Your task to perform on an android device: turn off smart reply in the gmail app Image 0: 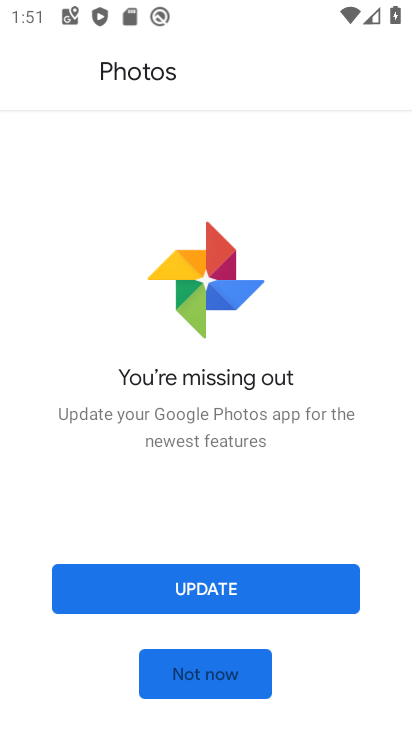
Step 0: press home button
Your task to perform on an android device: turn off smart reply in the gmail app Image 1: 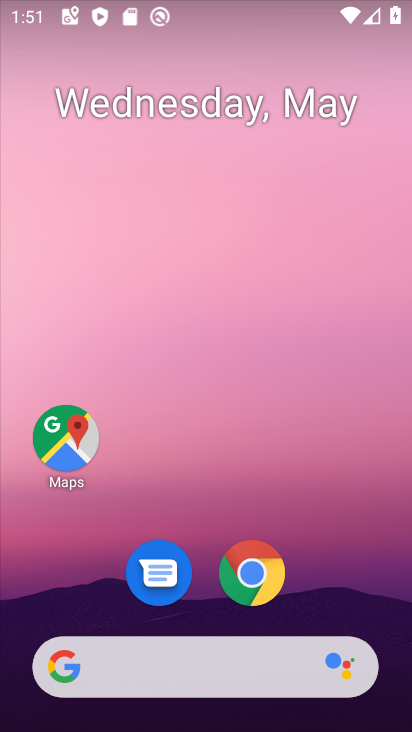
Step 1: drag from (312, 592) to (357, 89)
Your task to perform on an android device: turn off smart reply in the gmail app Image 2: 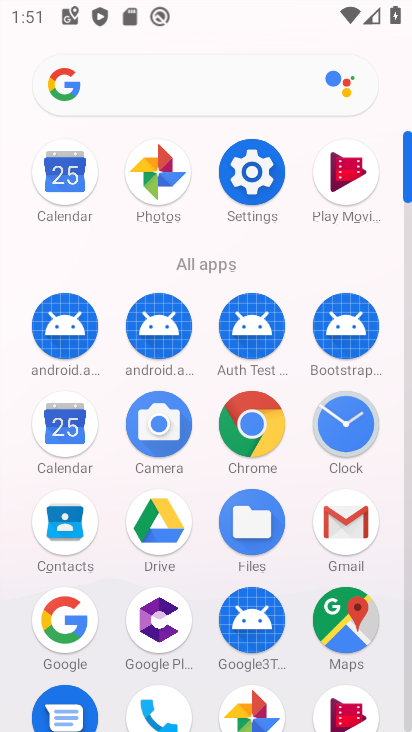
Step 2: click (330, 531)
Your task to perform on an android device: turn off smart reply in the gmail app Image 3: 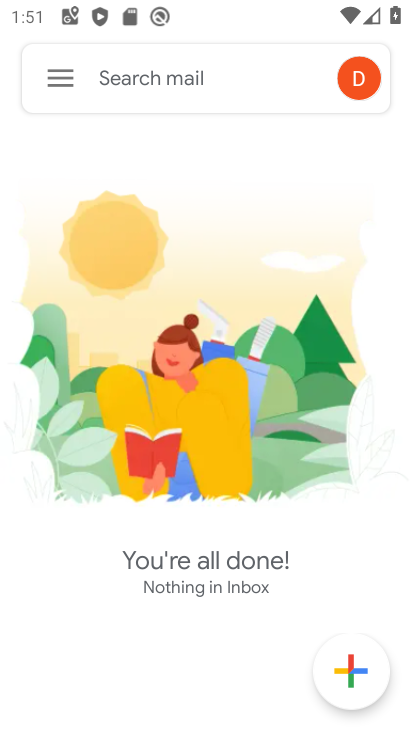
Step 3: click (55, 70)
Your task to perform on an android device: turn off smart reply in the gmail app Image 4: 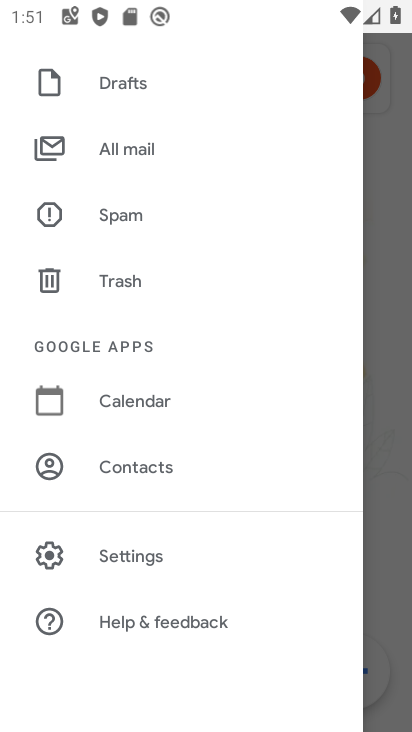
Step 4: click (151, 551)
Your task to perform on an android device: turn off smart reply in the gmail app Image 5: 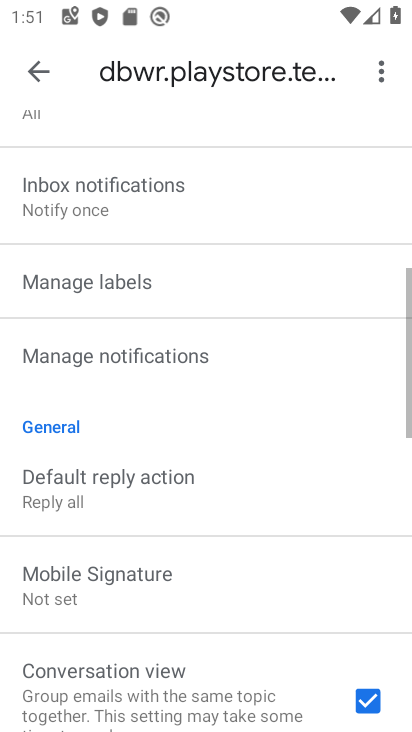
Step 5: drag from (162, 531) to (297, 222)
Your task to perform on an android device: turn off smart reply in the gmail app Image 6: 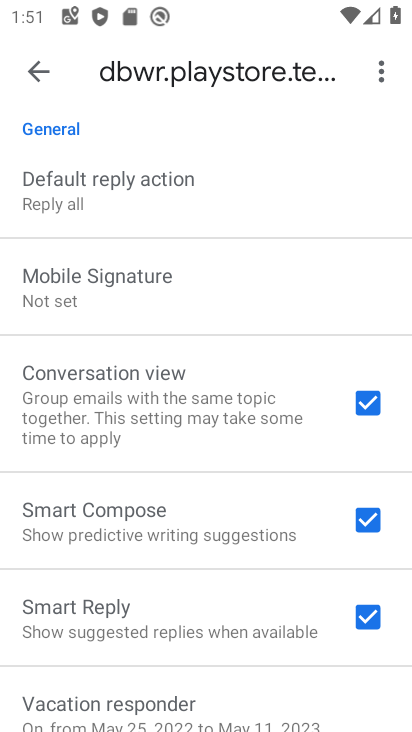
Step 6: click (371, 608)
Your task to perform on an android device: turn off smart reply in the gmail app Image 7: 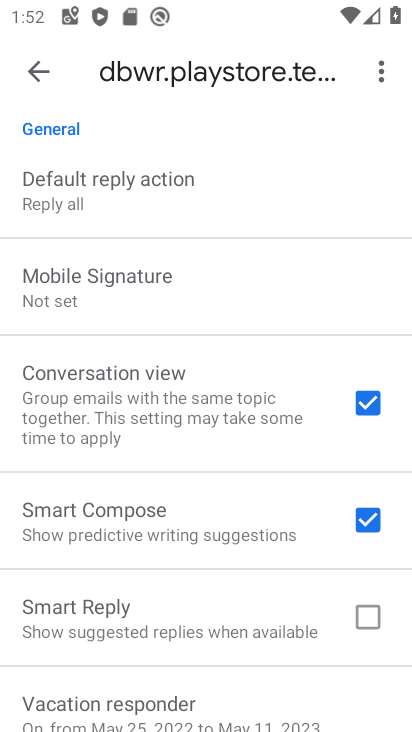
Step 7: task complete